Your task to perform on an android device: turn on showing notifications on the lock screen Image 0: 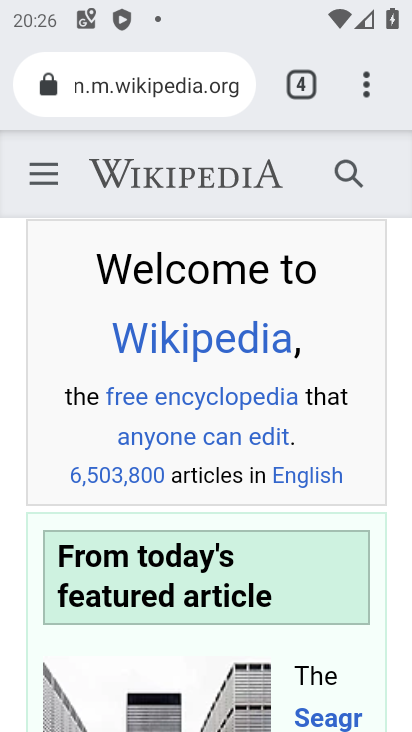
Step 0: press home button
Your task to perform on an android device: turn on showing notifications on the lock screen Image 1: 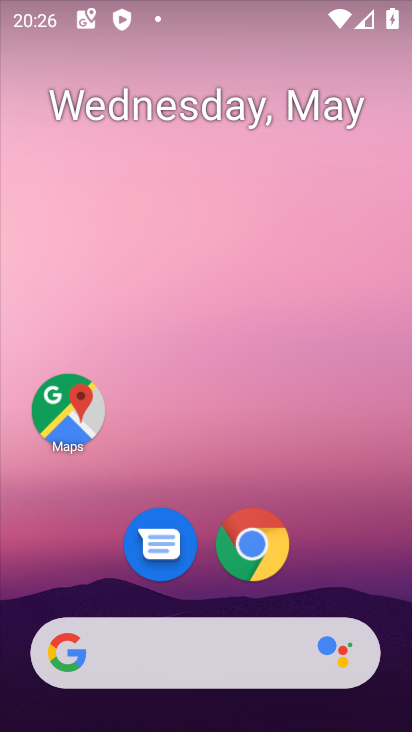
Step 1: drag from (202, 595) to (223, 158)
Your task to perform on an android device: turn on showing notifications on the lock screen Image 2: 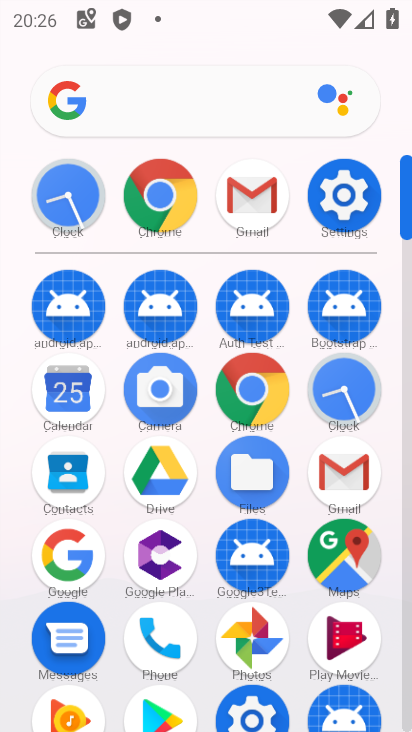
Step 2: click (358, 206)
Your task to perform on an android device: turn on showing notifications on the lock screen Image 3: 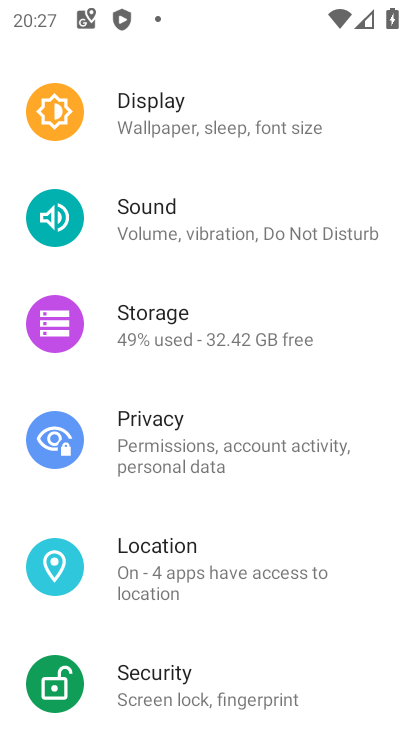
Step 3: drag from (213, 179) to (235, 663)
Your task to perform on an android device: turn on showing notifications on the lock screen Image 4: 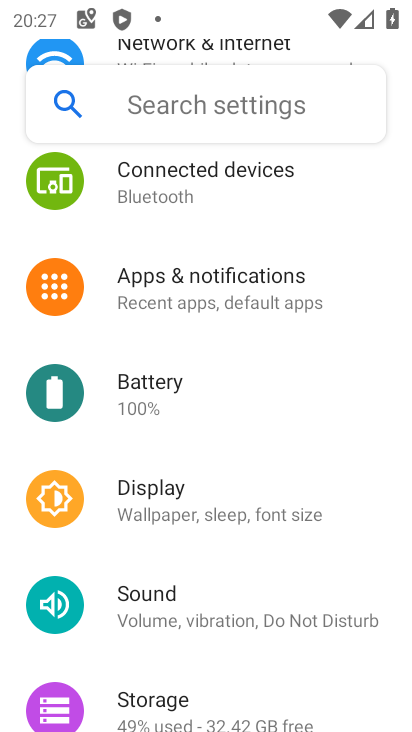
Step 4: click (194, 285)
Your task to perform on an android device: turn on showing notifications on the lock screen Image 5: 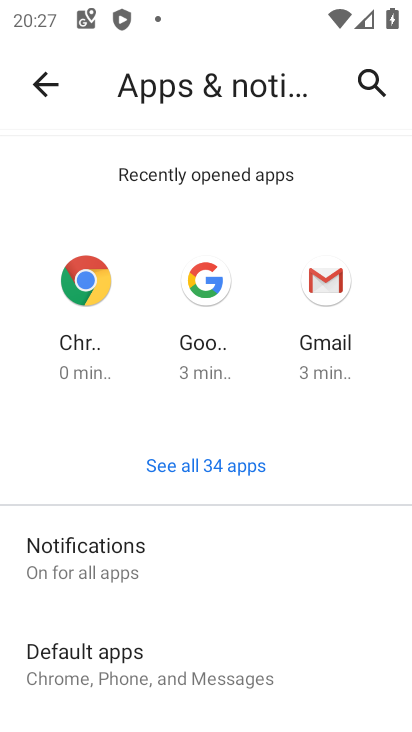
Step 5: click (110, 557)
Your task to perform on an android device: turn on showing notifications on the lock screen Image 6: 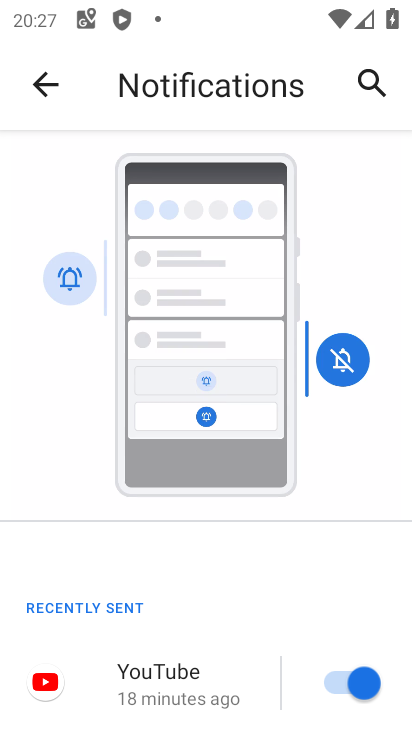
Step 6: drag from (163, 701) to (263, 106)
Your task to perform on an android device: turn on showing notifications on the lock screen Image 7: 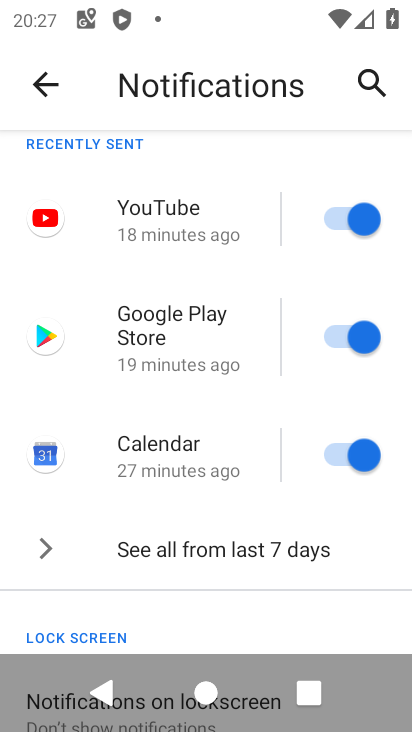
Step 7: drag from (133, 641) to (212, 199)
Your task to perform on an android device: turn on showing notifications on the lock screen Image 8: 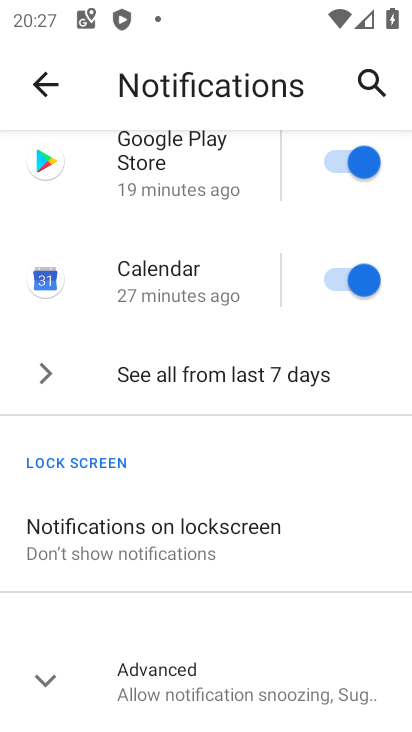
Step 8: click (200, 670)
Your task to perform on an android device: turn on showing notifications on the lock screen Image 9: 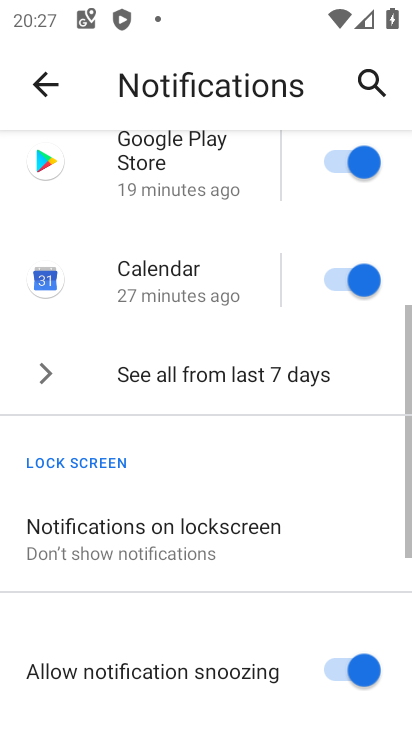
Step 9: drag from (200, 670) to (241, 170)
Your task to perform on an android device: turn on showing notifications on the lock screen Image 10: 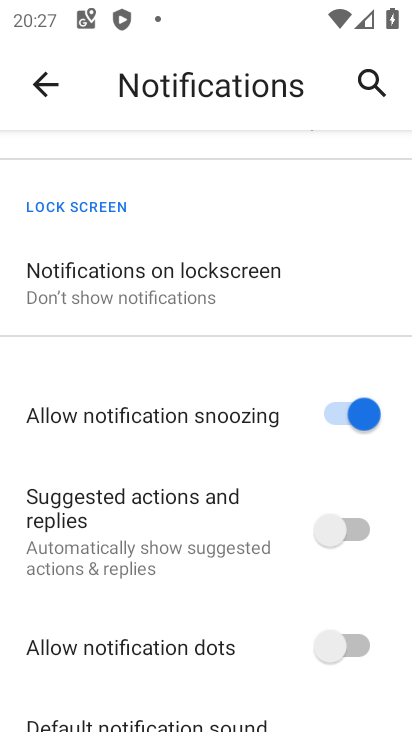
Step 10: click (228, 299)
Your task to perform on an android device: turn on showing notifications on the lock screen Image 11: 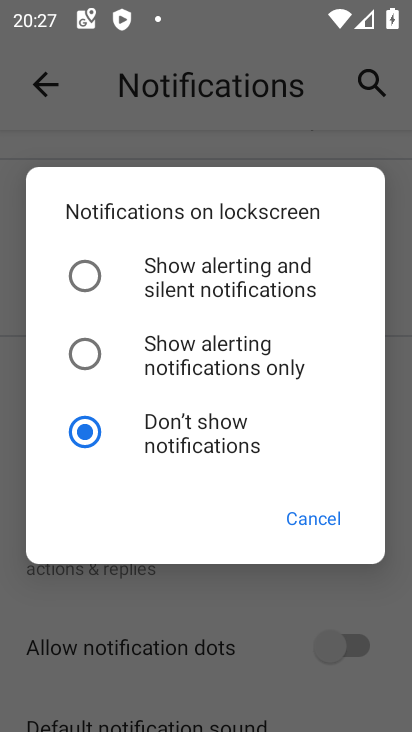
Step 11: click (205, 281)
Your task to perform on an android device: turn on showing notifications on the lock screen Image 12: 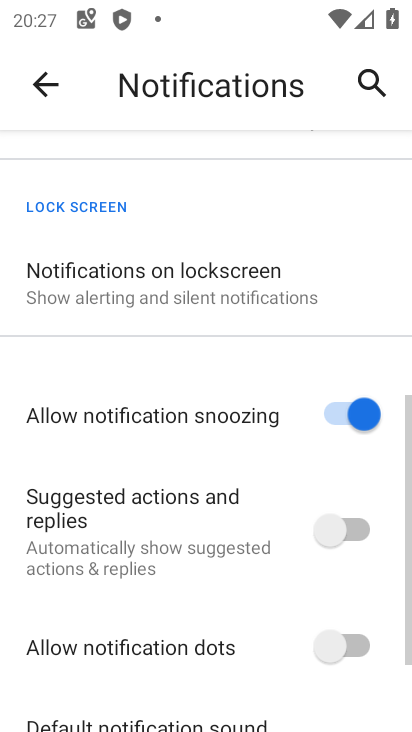
Step 12: task complete